Your task to perform on an android device: turn on translation in the chrome app Image 0: 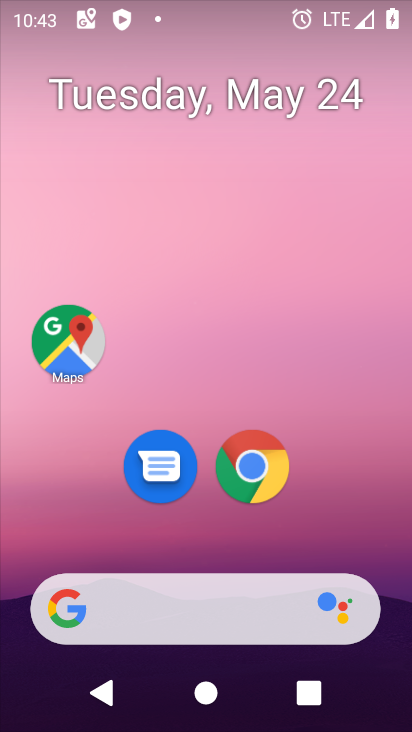
Step 0: drag from (400, 569) to (397, 315)
Your task to perform on an android device: turn on translation in the chrome app Image 1: 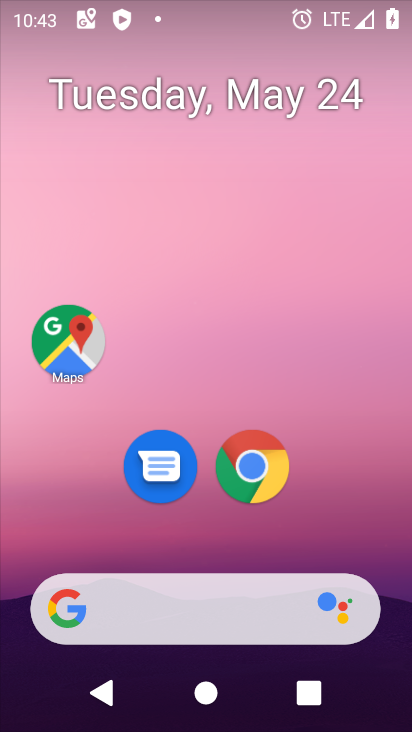
Step 1: drag from (385, 525) to (371, 207)
Your task to perform on an android device: turn on translation in the chrome app Image 2: 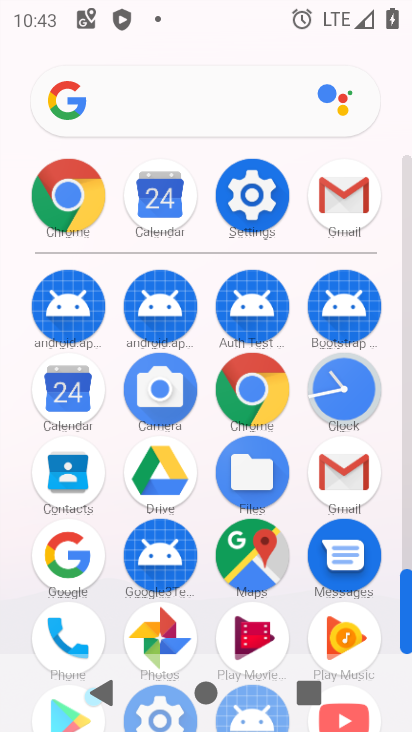
Step 2: click (273, 413)
Your task to perform on an android device: turn on translation in the chrome app Image 3: 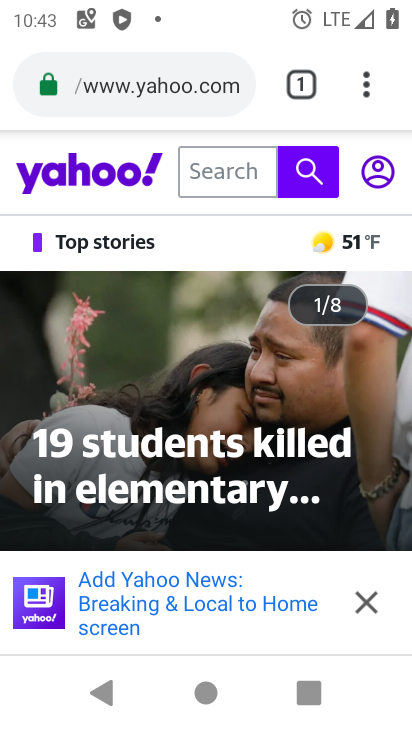
Step 3: click (366, 99)
Your task to perform on an android device: turn on translation in the chrome app Image 4: 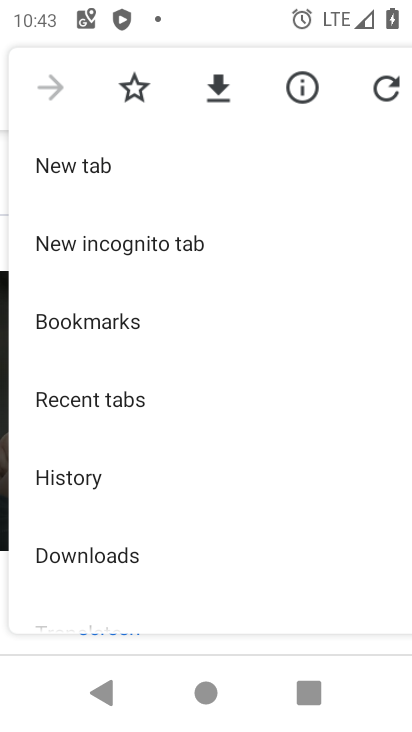
Step 4: drag from (333, 391) to (344, 328)
Your task to perform on an android device: turn on translation in the chrome app Image 5: 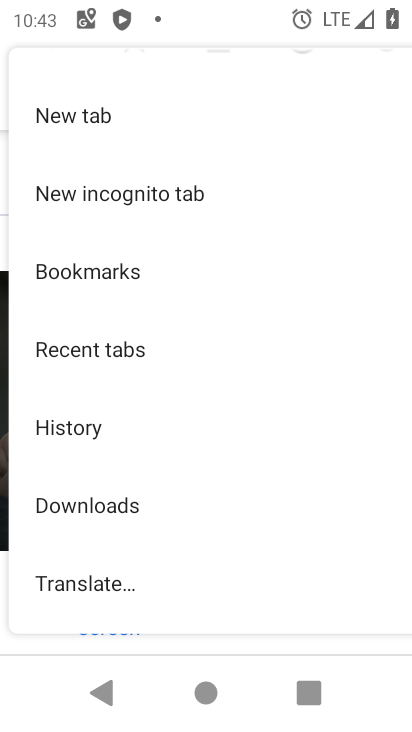
Step 5: drag from (326, 419) to (321, 341)
Your task to perform on an android device: turn on translation in the chrome app Image 6: 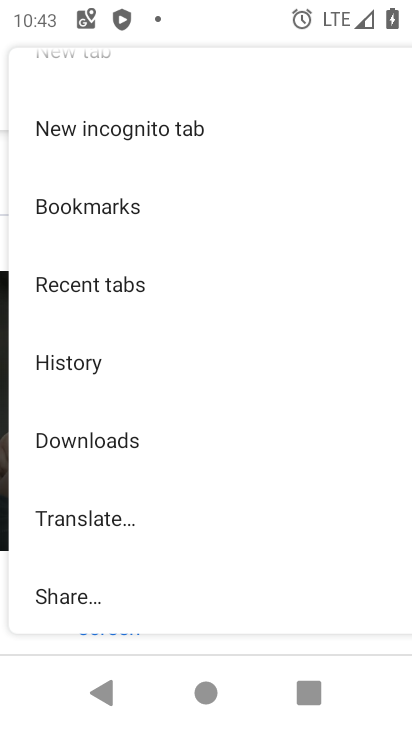
Step 6: drag from (307, 404) to (325, 329)
Your task to perform on an android device: turn on translation in the chrome app Image 7: 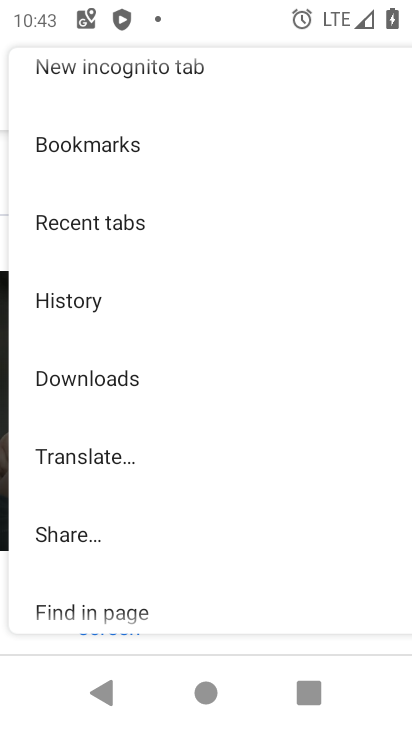
Step 7: drag from (337, 433) to (320, 366)
Your task to perform on an android device: turn on translation in the chrome app Image 8: 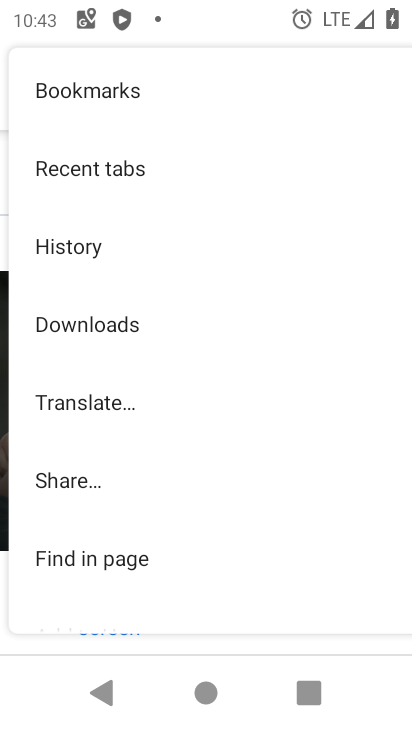
Step 8: drag from (303, 472) to (296, 403)
Your task to perform on an android device: turn on translation in the chrome app Image 9: 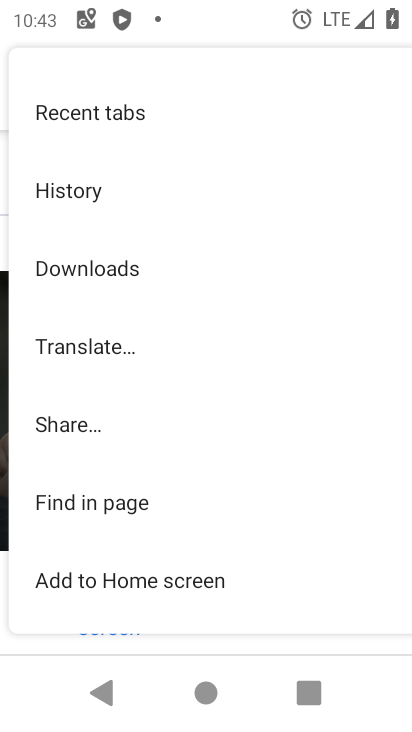
Step 9: drag from (288, 489) to (292, 423)
Your task to perform on an android device: turn on translation in the chrome app Image 10: 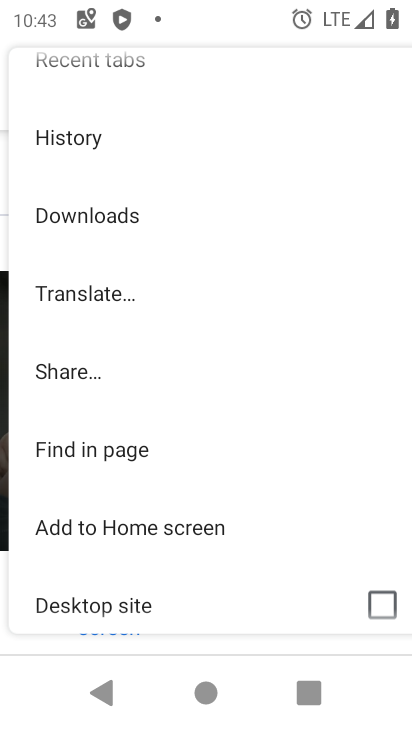
Step 10: drag from (301, 478) to (325, 412)
Your task to perform on an android device: turn on translation in the chrome app Image 11: 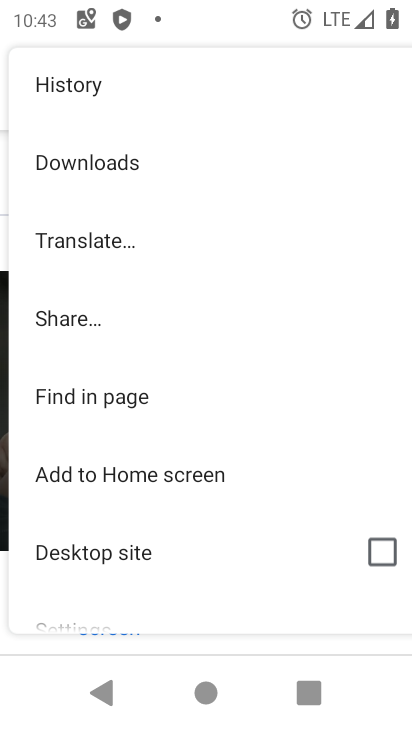
Step 11: drag from (304, 506) to (316, 404)
Your task to perform on an android device: turn on translation in the chrome app Image 12: 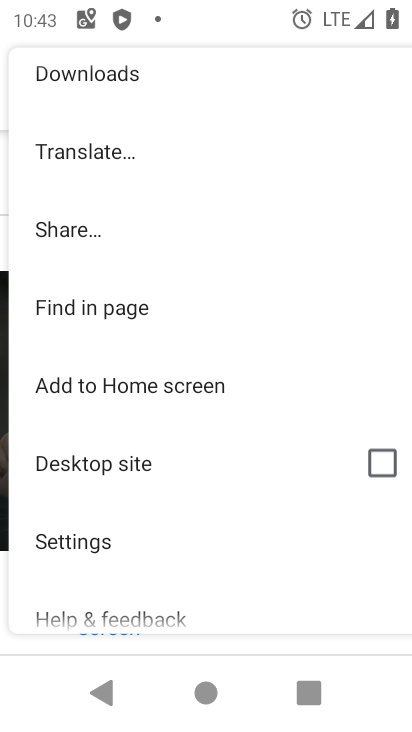
Step 12: click (148, 555)
Your task to perform on an android device: turn on translation in the chrome app Image 13: 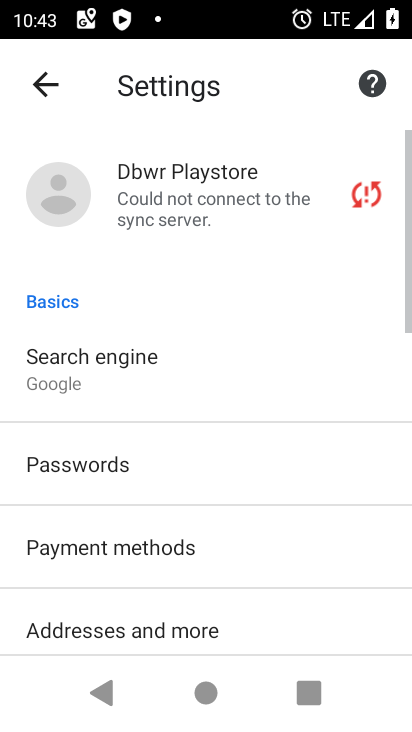
Step 13: drag from (327, 556) to (350, 465)
Your task to perform on an android device: turn on translation in the chrome app Image 14: 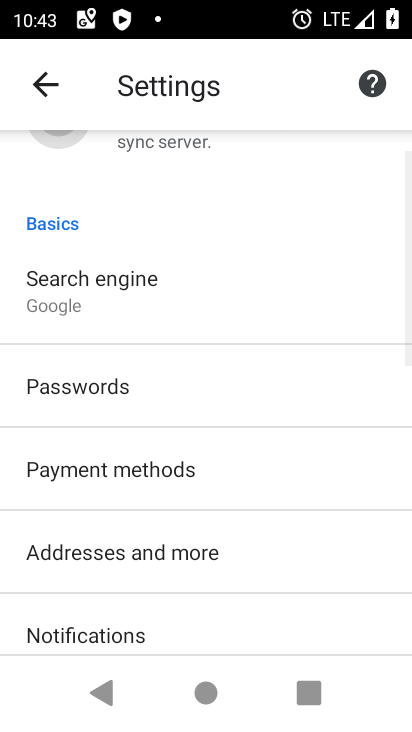
Step 14: drag from (322, 582) to (335, 484)
Your task to perform on an android device: turn on translation in the chrome app Image 15: 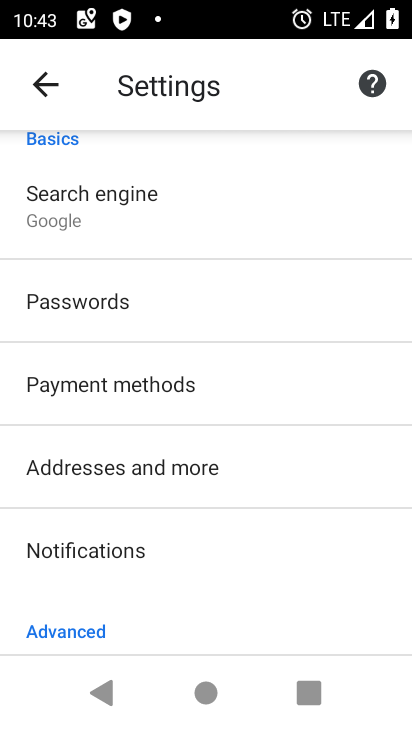
Step 15: drag from (294, 590) to (294, 505)
Your task to perform on an android device: turn on translation in the chrome app Image 16: 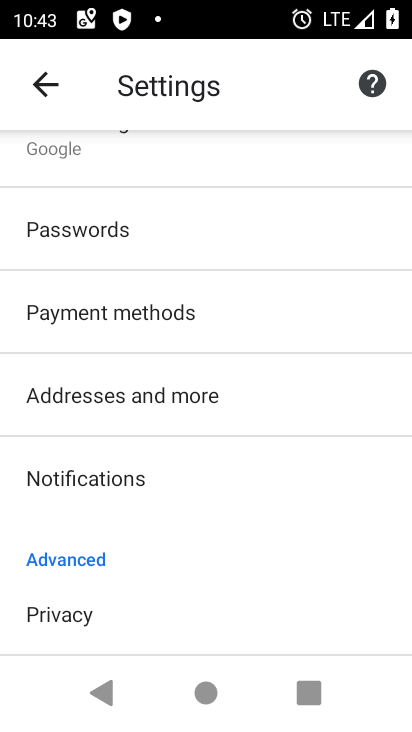
Step 16: drag from (289, 562) to (272, 434)
Your task to perform on an android device: turn on translation in the chrome app Image 17: 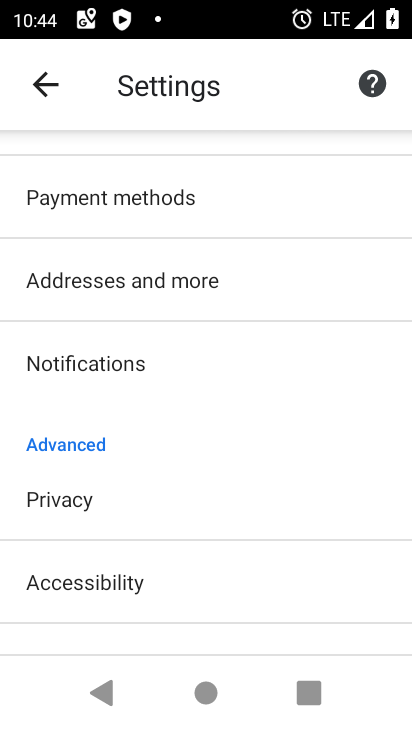
Step 17: drag from (260, 547) to (267, 455)
Your task to perform on an android device: turn on translation in the chrome app Image 18: 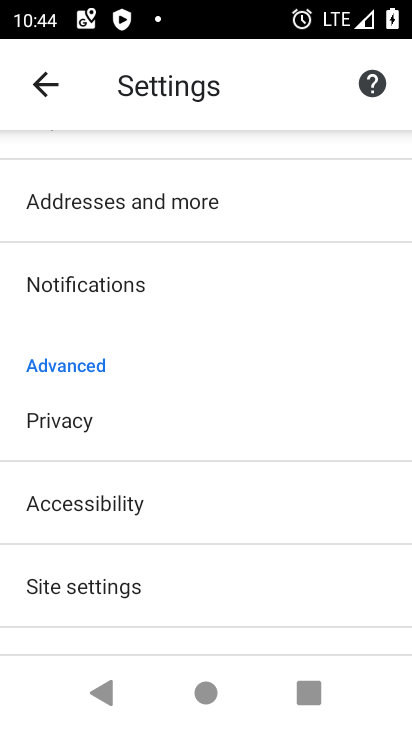
Step 18: drag from (260, 581) to (273, 460)
Your task to perform on an android device: turn on translation in the chrome app Image 19: 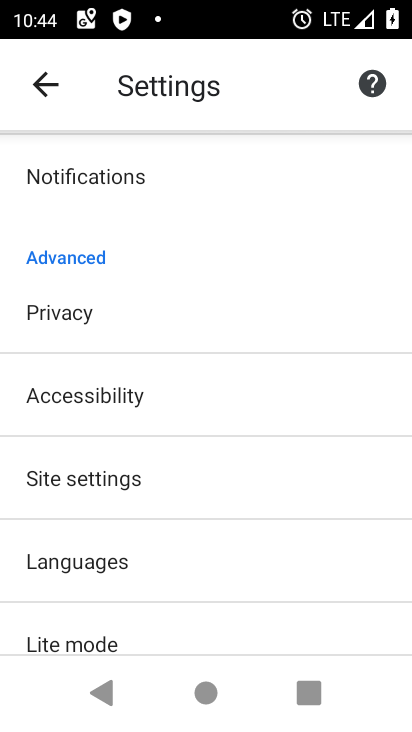
Step 19: click (243, 577)
Your task to perform on an android device: turn on translation in the chrome app Image 20: 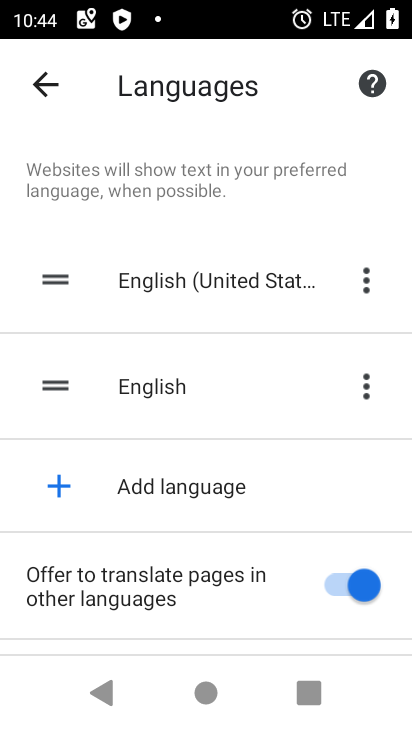
Step 20: task complete